Your task to perform on an android device: create a new album in the google photos Image 0: 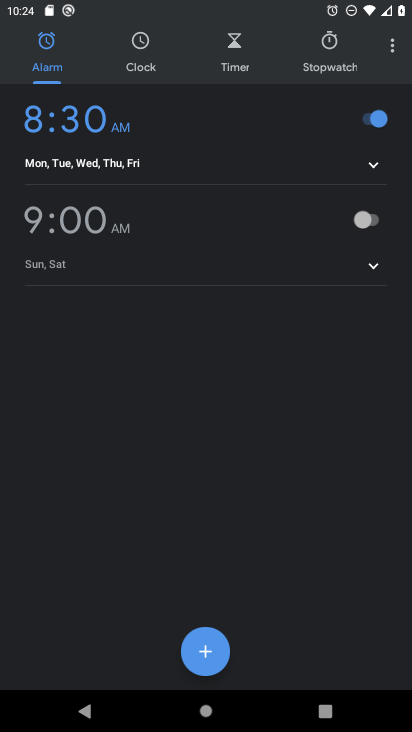
Step 0: press back button
Your task to perform on an android device: create a new album in the google photos Image 1: 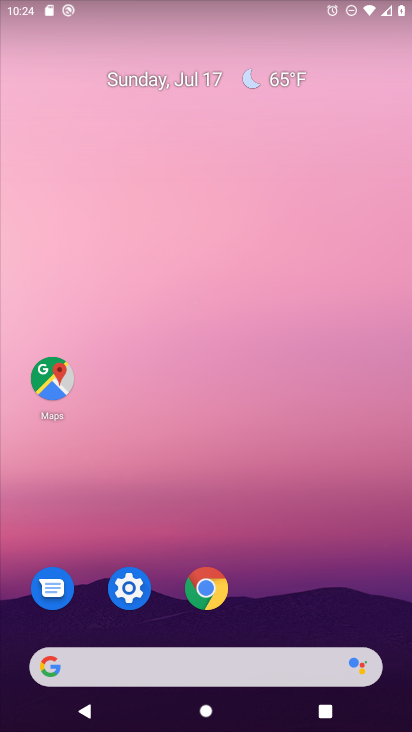
Step 1: drag from (265, 672) to (259, 50)
Your task to perform on an android device: create a new album in the google photos Image 2: 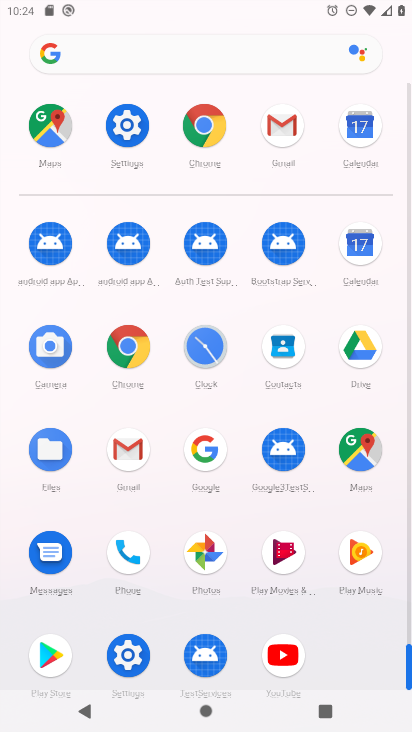
Step 2: click (212, 548)
Your task to perform on an android device: create a new album in the google photos Image 3: 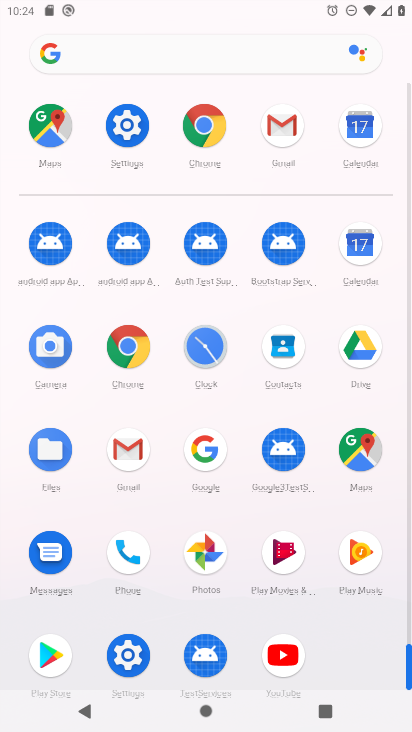
Step 3: click (212, 548)
Your task to perform on an android device: create a new album in the google photos Image 4: 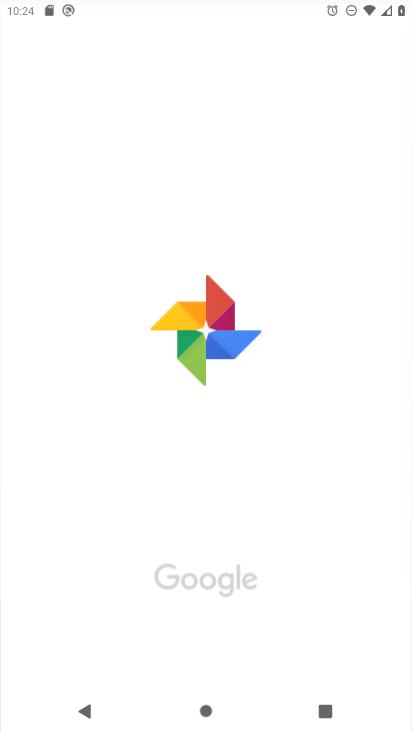
Step 4: click (211, 547)
Your task to perform on an android device: create a new album in the google photos Image 5: 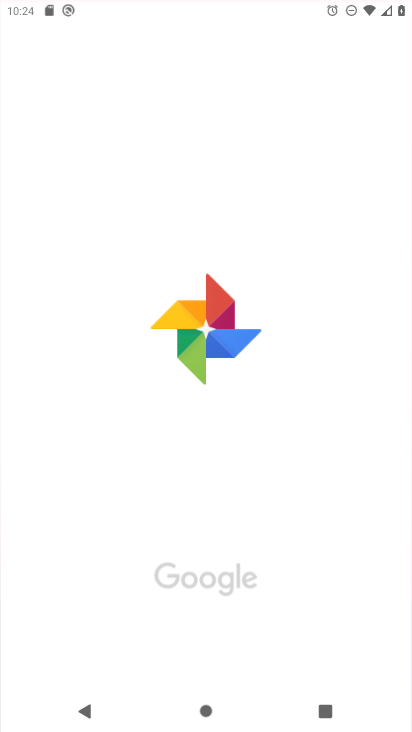
Step 5: click (211, 547)
Your task to perform on an android device: create a new album in the google photos Image 6: 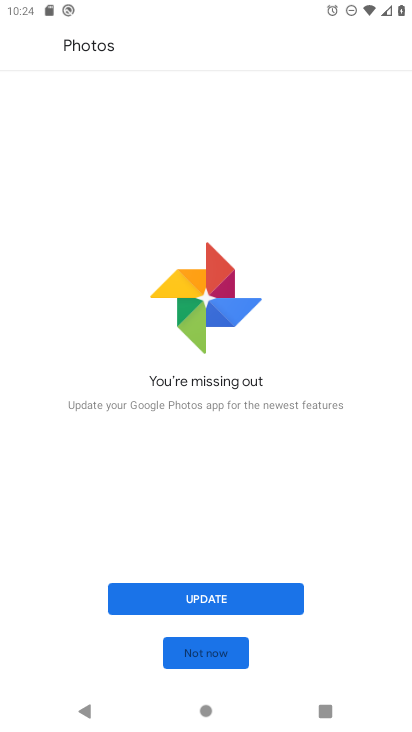
Step 6: click (199, 654)
Your task to perform on an android device: create a new album in the google photos Image 7: 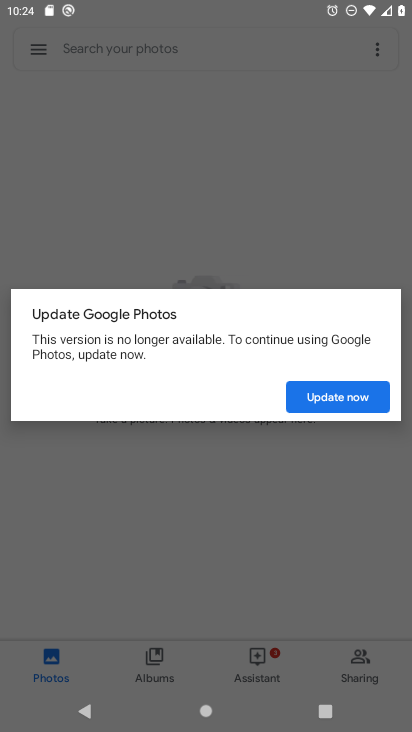
Step 7: click (328, 385)
Your task to perform on an android device: create a new album in the google photos Image 8: 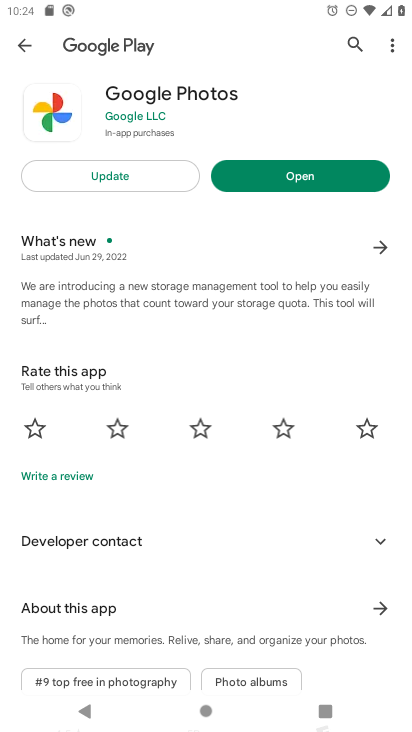
Step 8: click (87, 172)
Your task to perform on an android device: create a new album in the google photos Image 9: 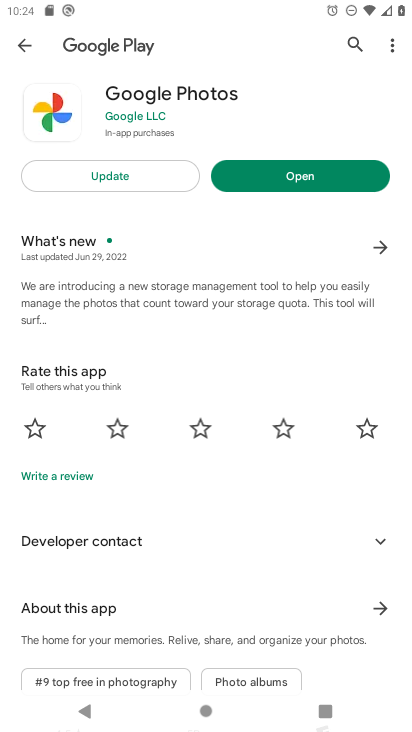
Step 9: click (88, 167)
Your task to perform on an android device: create a new album in the google photos Image 10: 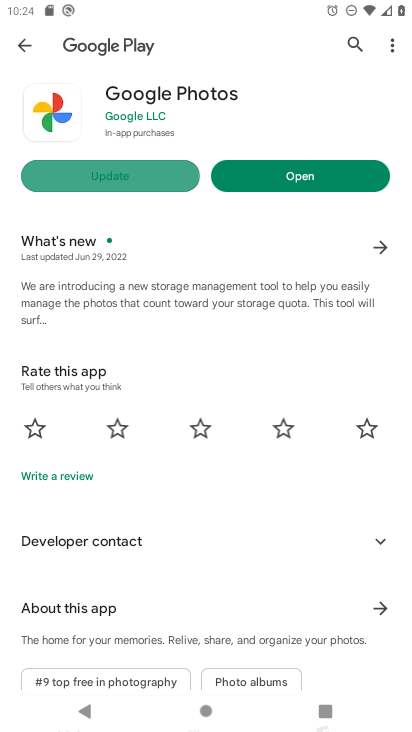
Step 10: click (91, 165)
Your task to perform on an android device: create a new album in the google photos Image 11: 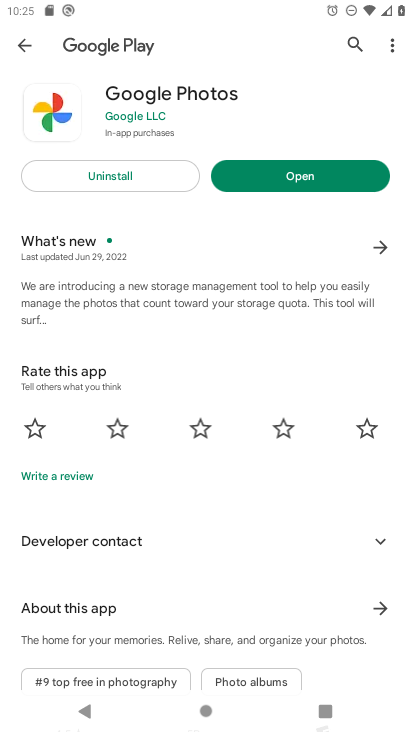
Step 11: click (315, 182)
Your task to perform on an android device: create a new album in the google photos Image 12: 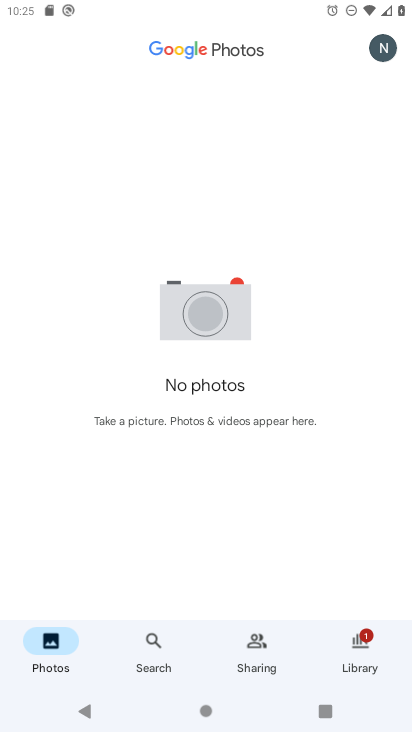
Step 12: task complete